Your task to perform on an android device: turn smart compose on in the gmail app Image 0: 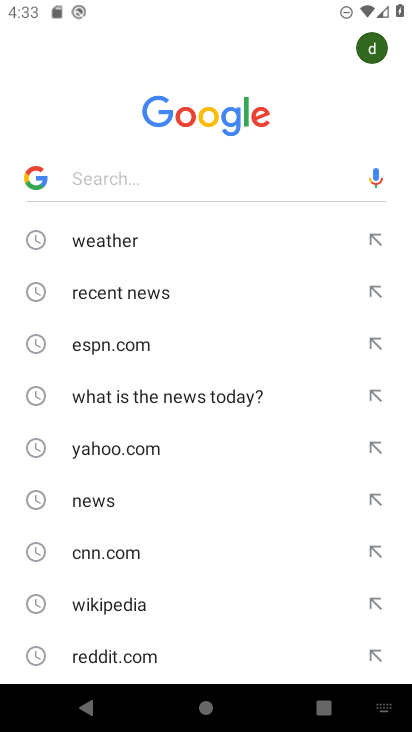
Step 0: press home button
Your task to perform on an android device: turn smart compose on in the gmail app Image 1: 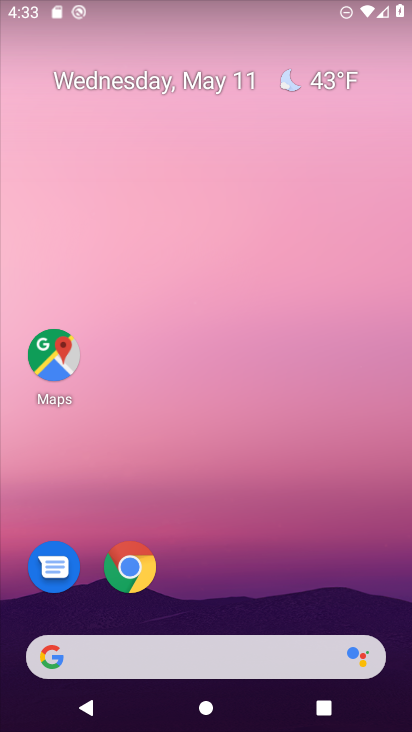
Step 1: drag from (199, 585) to (277, 176)
Your task to perform on an android device: turn smart compose on in the gmail app Image 2: 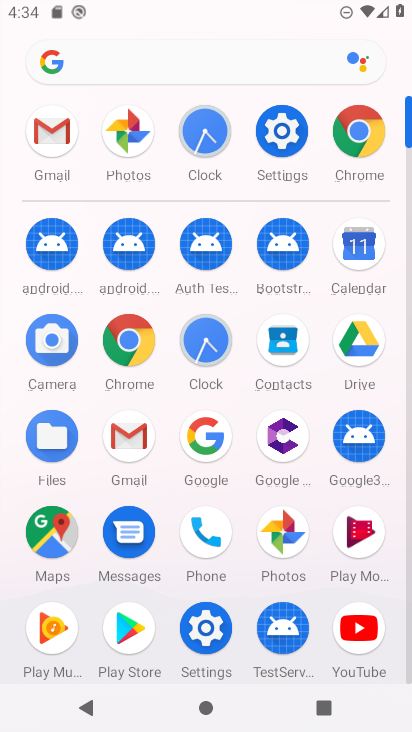
Step 2: click (44, 124)
Your task to perform on an android device: turn smart compose on in the gmail app Image 3: 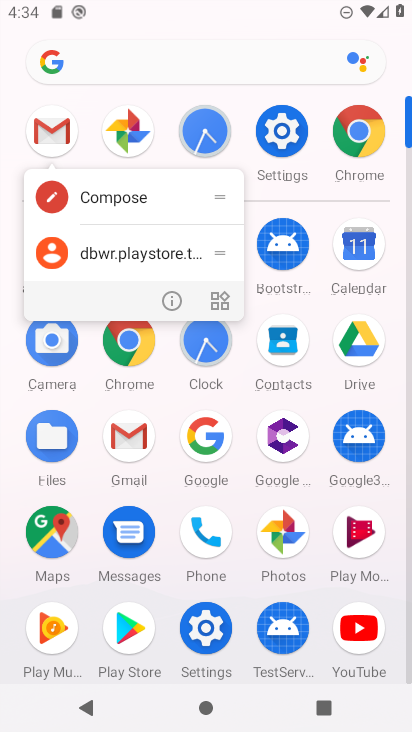
Step 3: click (65, 136)
Your task to perform on an android device: turn smart compose on in the gmail app Image 4: 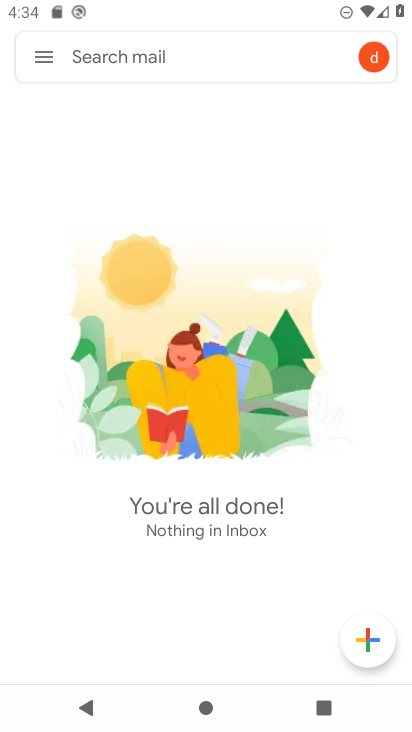
Step 4: click (35, 63)
Your task to perform on an android device: turn smart compose on in the gmail app Image 5: 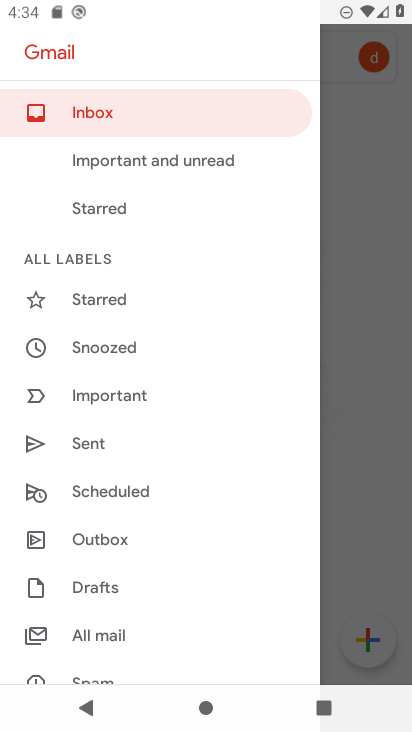
Step 5: drag from (155, 549) to (189, 203)
Your task to perform on an android device: turn smart compose on in the gmail app Image 6: 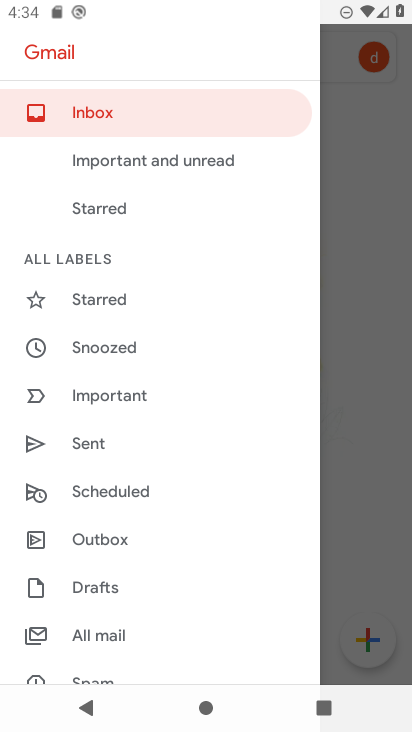
Step 6: drag from (159, 653) to (238, 265)
Your task to perform on an android device: turn smart compose on in the gmail app Image 7: 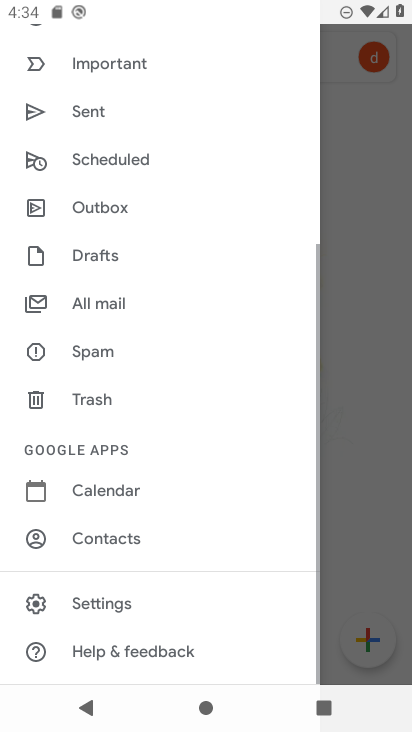
Step 7: click (93, 606)
Your task to perform on an android device: turn smart compose on in the gmail app Image 8: 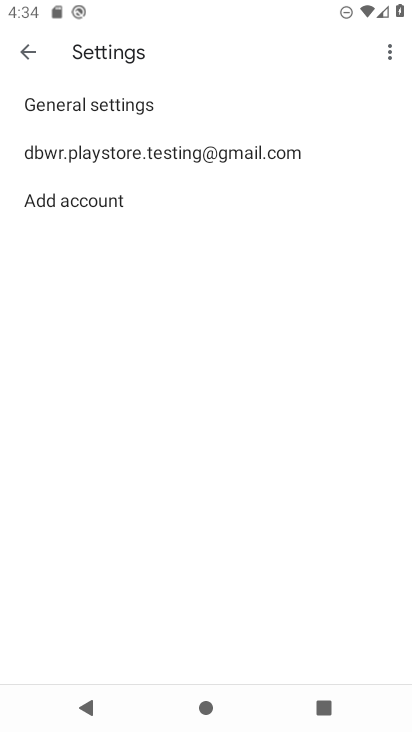
Step 8: click (262, 144)
Your task to perform on an android device: turn smart compose on in the gmail app Image 9: 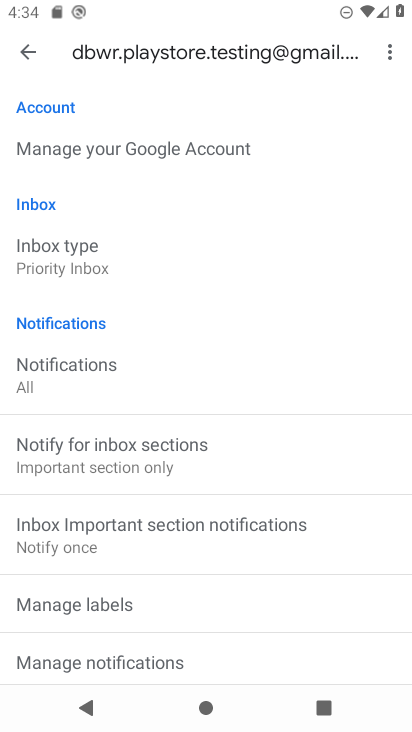
Step 9: task complete